Your task to perform on an android device: Open the stopwatch Image 0: 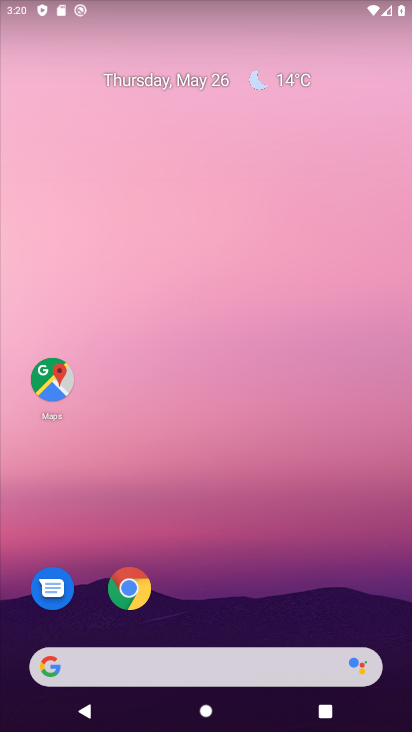
Step 0: drag from (277, 611) to (266, 126)
Your task to perform on an android device: Open the stopwatch Image 1: 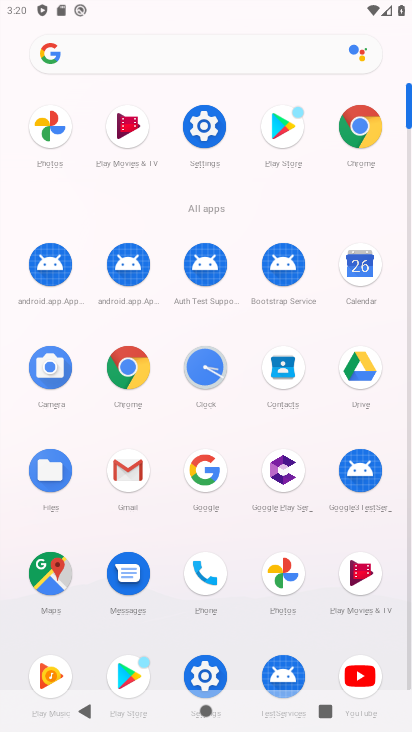
Step 1: click (214, 378)
Your task to perform on an android device: Open the stopwatch Image 2: 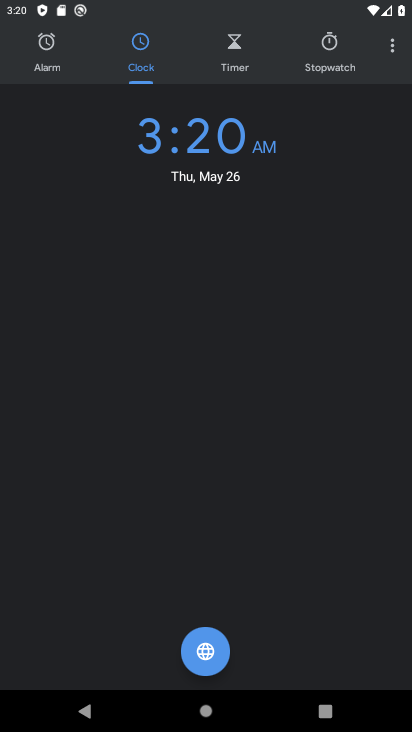
Step 2: click (328, 70)
Your task to perform on an android device: Open the stopwatch Image 3: 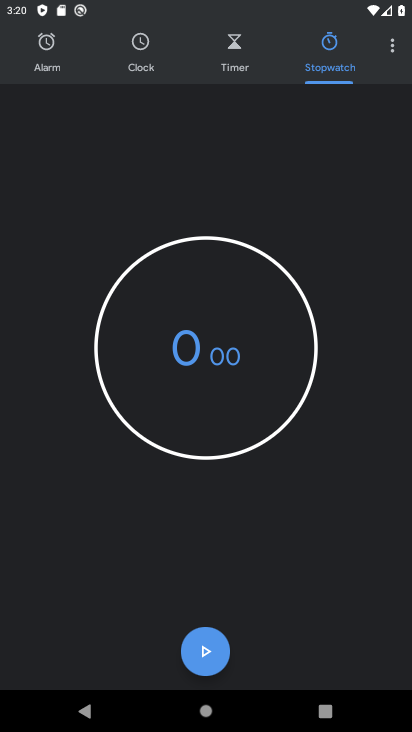
Step 3: task complete